Your task to perform on an android device: Clear the shopping cart on newegg.com. Add "lenovo thinkpad" to the cart on newegg.com Image 0: 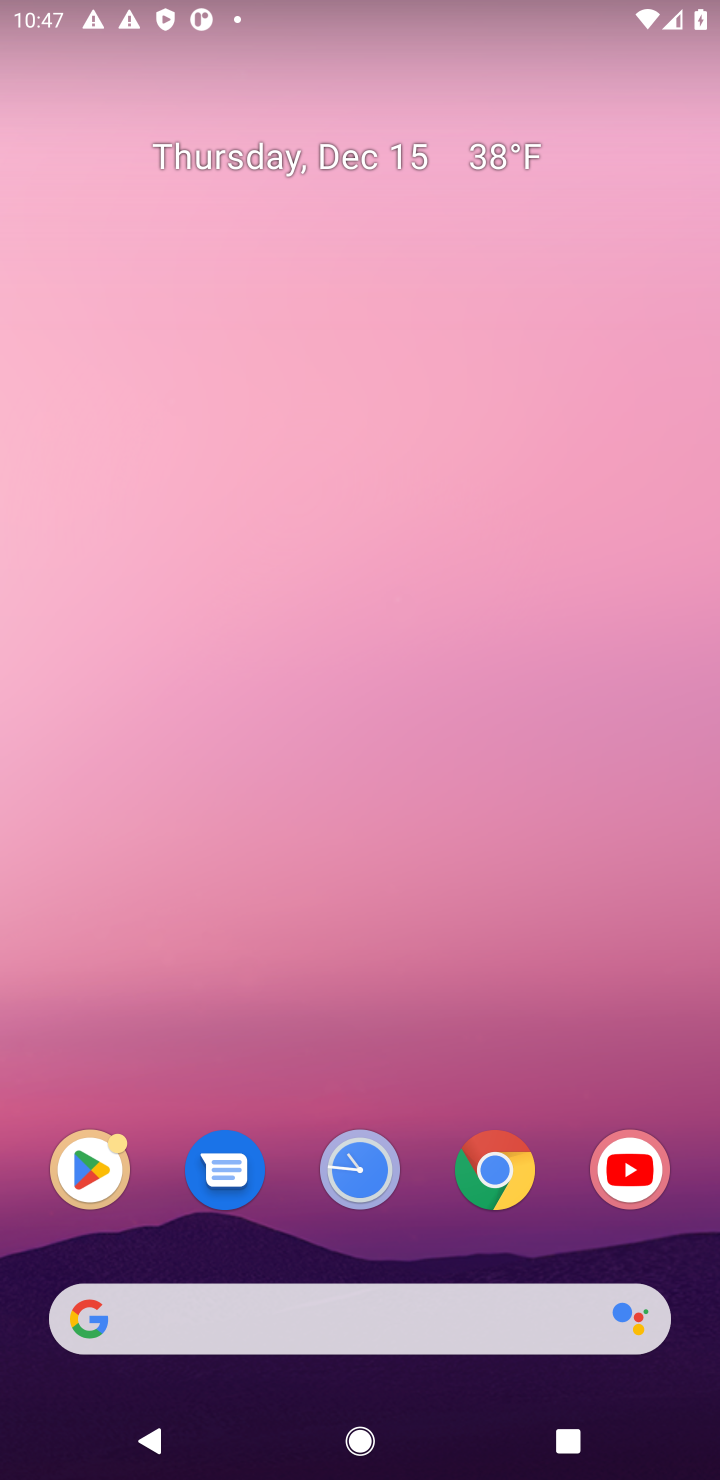
Step 0: click (497, 1167)
Your task to perform on an android device: Clear the shopping cart on newegg.com. Add "lenovo thinkpad" to the cart on newegg.com Image 1: 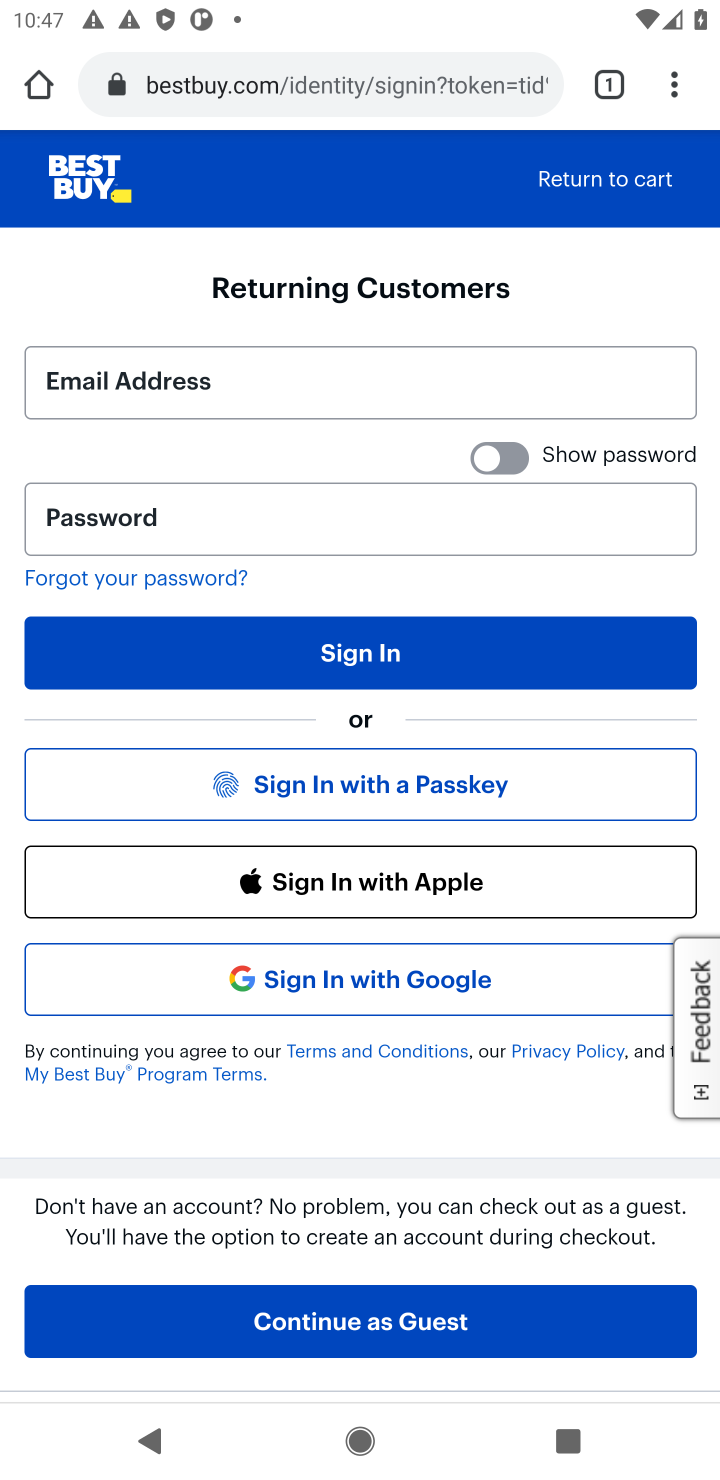
Step 1: click (256, 89)
Your task to perform on an android device: Clear the shopping cart on newegg.com. Add "lenovo thinkpad" to the cart on newegg.com Image 2: 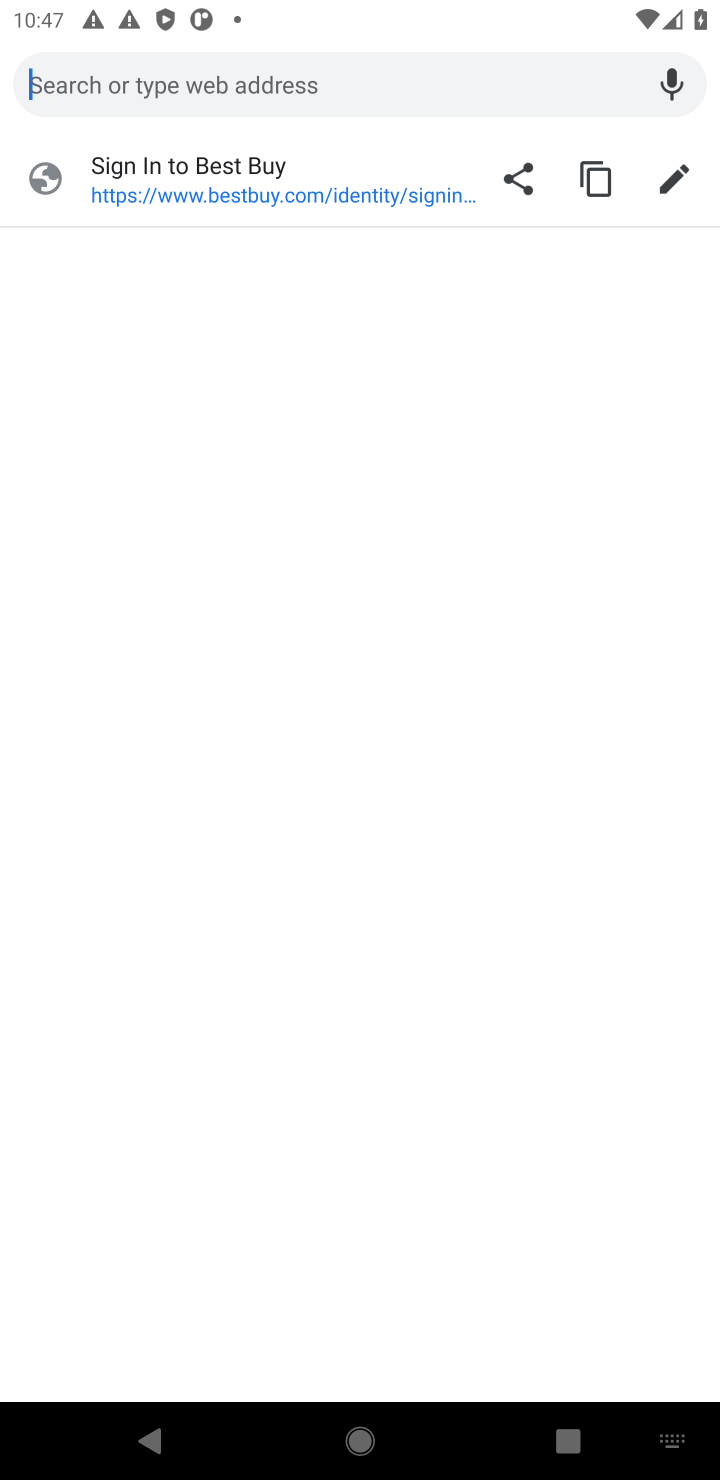
Step 2: type "newegg.com"
Your task to perform on an android device: Clear the shopping cart on newegg.com. Add "lenovo thinkpad" to the cart on newegg.com Image 3: 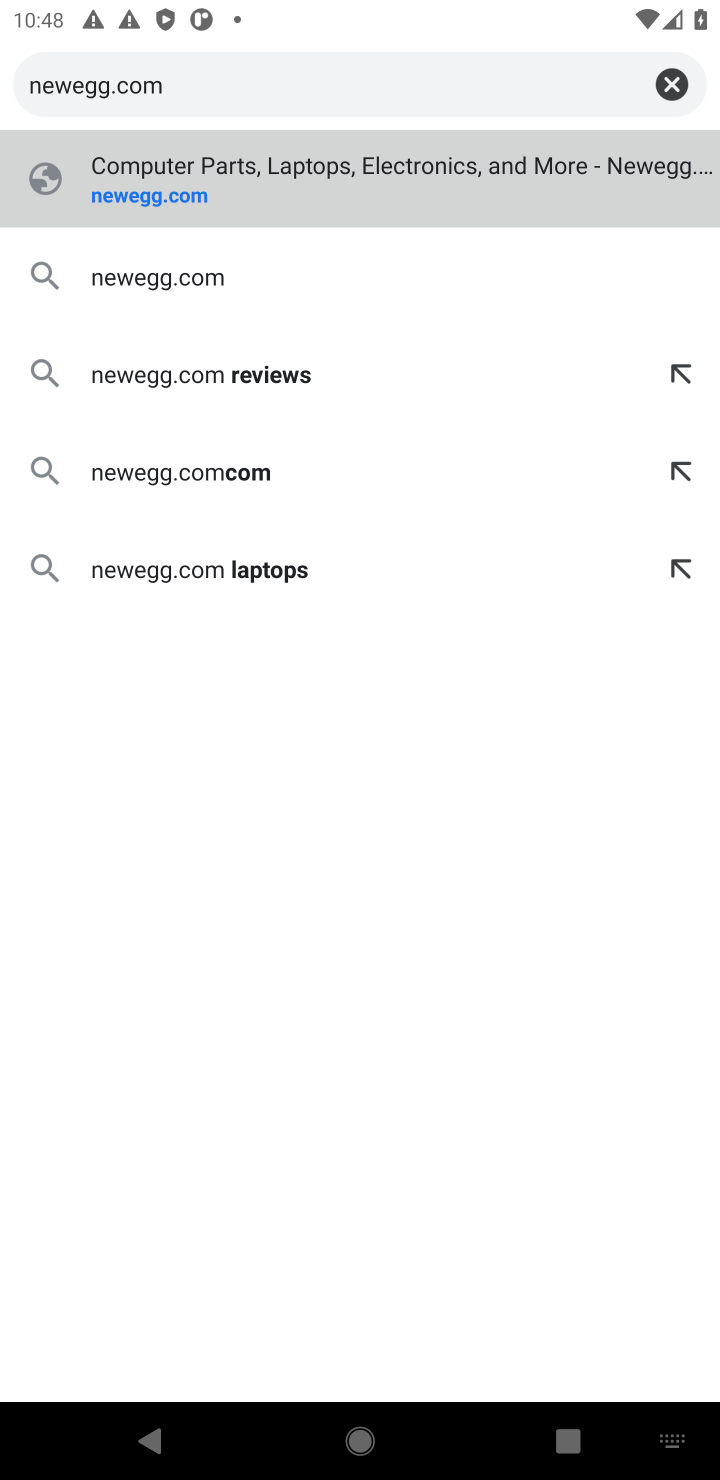
Step 3: click (178, 208)
Your task to perform on an android device: Clear the shopping cart on newegg.com. Add "lenovo thinkpad" to the cart on newegg.com Image 4: 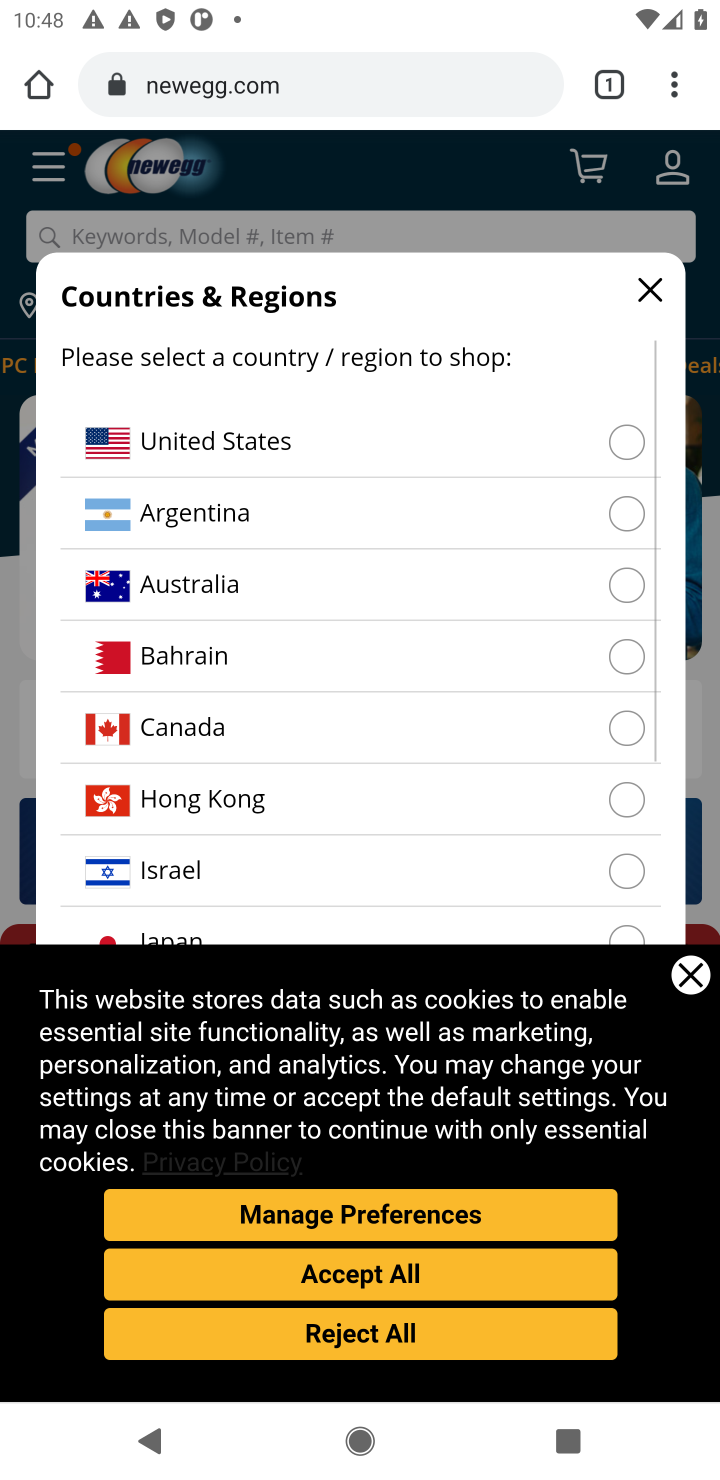
Step 4: click (688, 985)
Your task to perform on an android device: Clear the shopping cart on newegg.com. Add "lenovo thinkpad" to the cart on newegg.com Image 5: 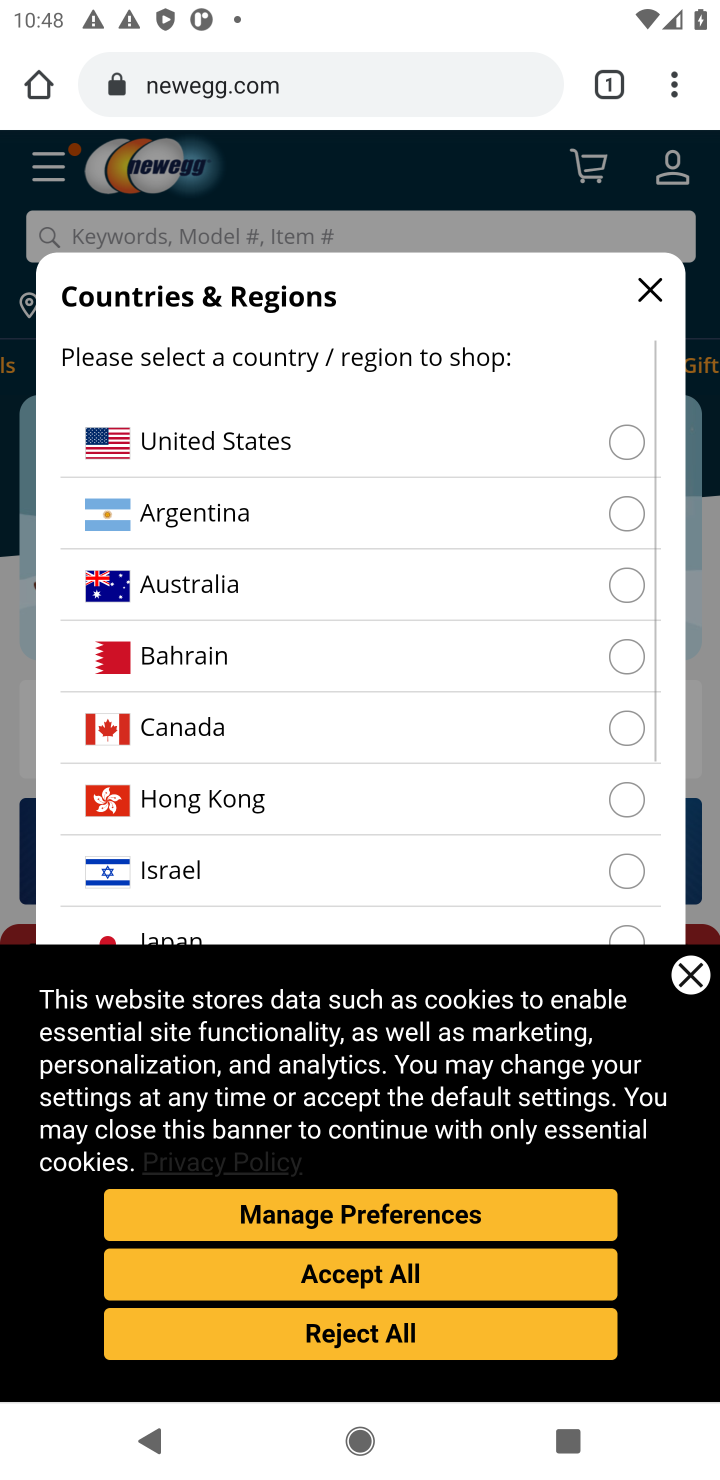
Step 5: click (685, 978)
Your task to perform on an android device: Clear the shopping cart on newegg.com. Add "lenovo thinkpad" to the cart on newegg.com Image 6: 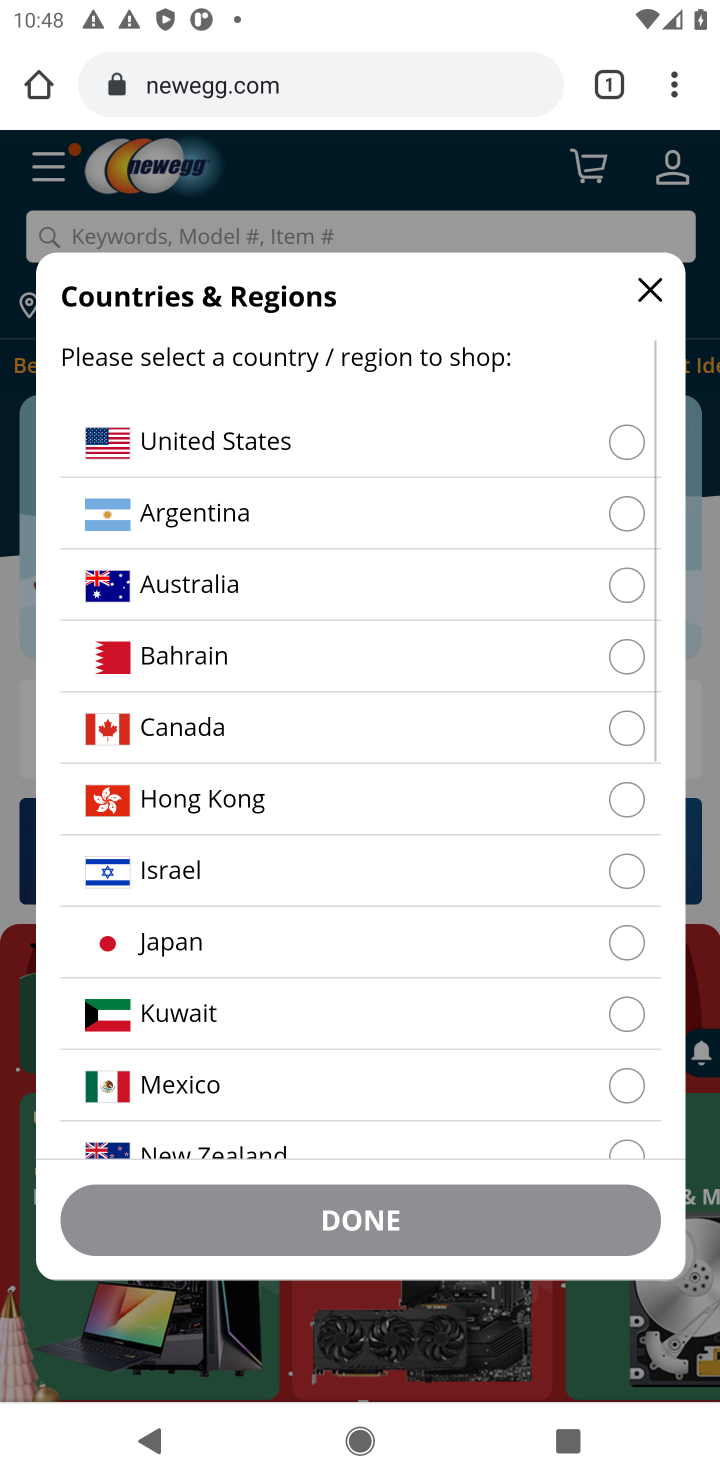
Step 6: click (147, 423)
Your task to perform on an android device: Clear the shopping cart on newegg.com. Add "lenovo thinkpad" to the cart on newegg.com Image 7: 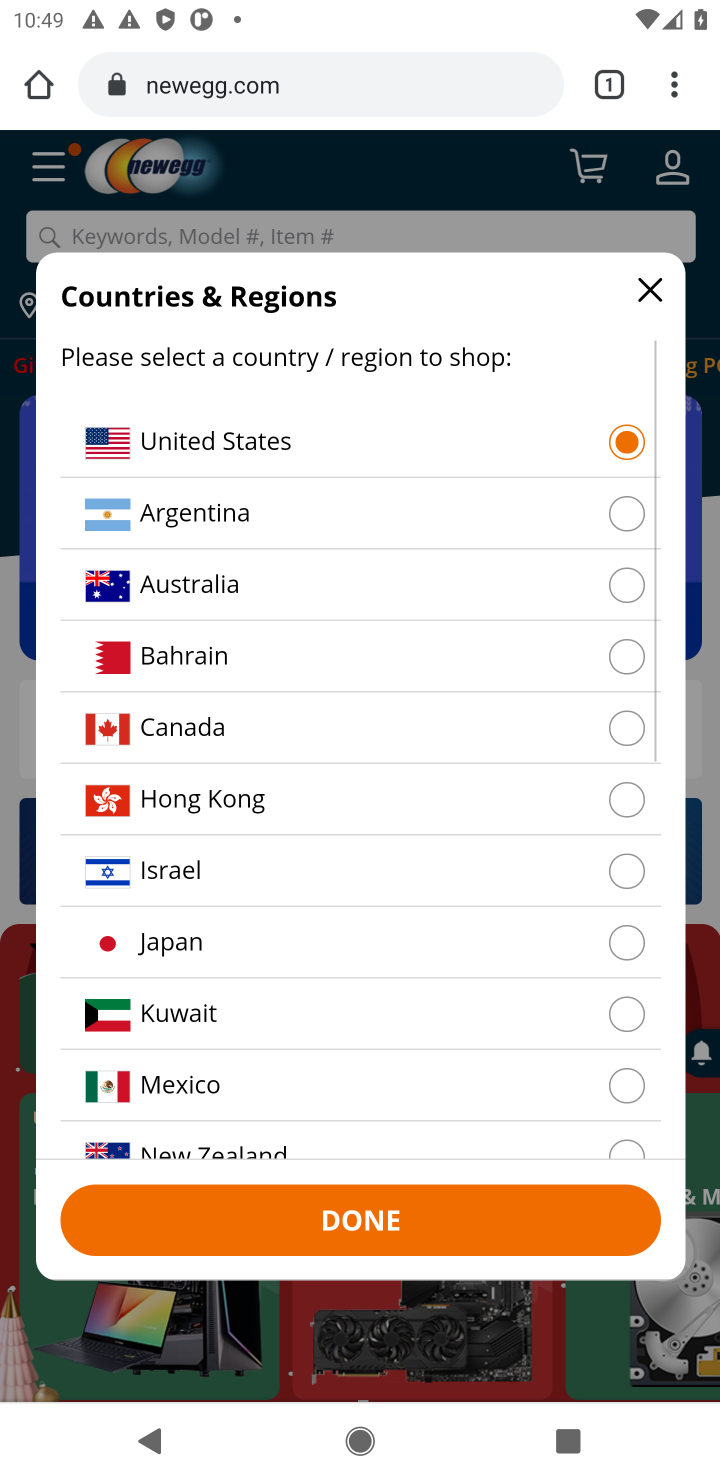
Step 7: click (291, 1239)
Your task to perform on an android device: Clear the shopping cart on newegg.com. Add "lenovo thinkpad" to the cart on newegg.com Image 8: 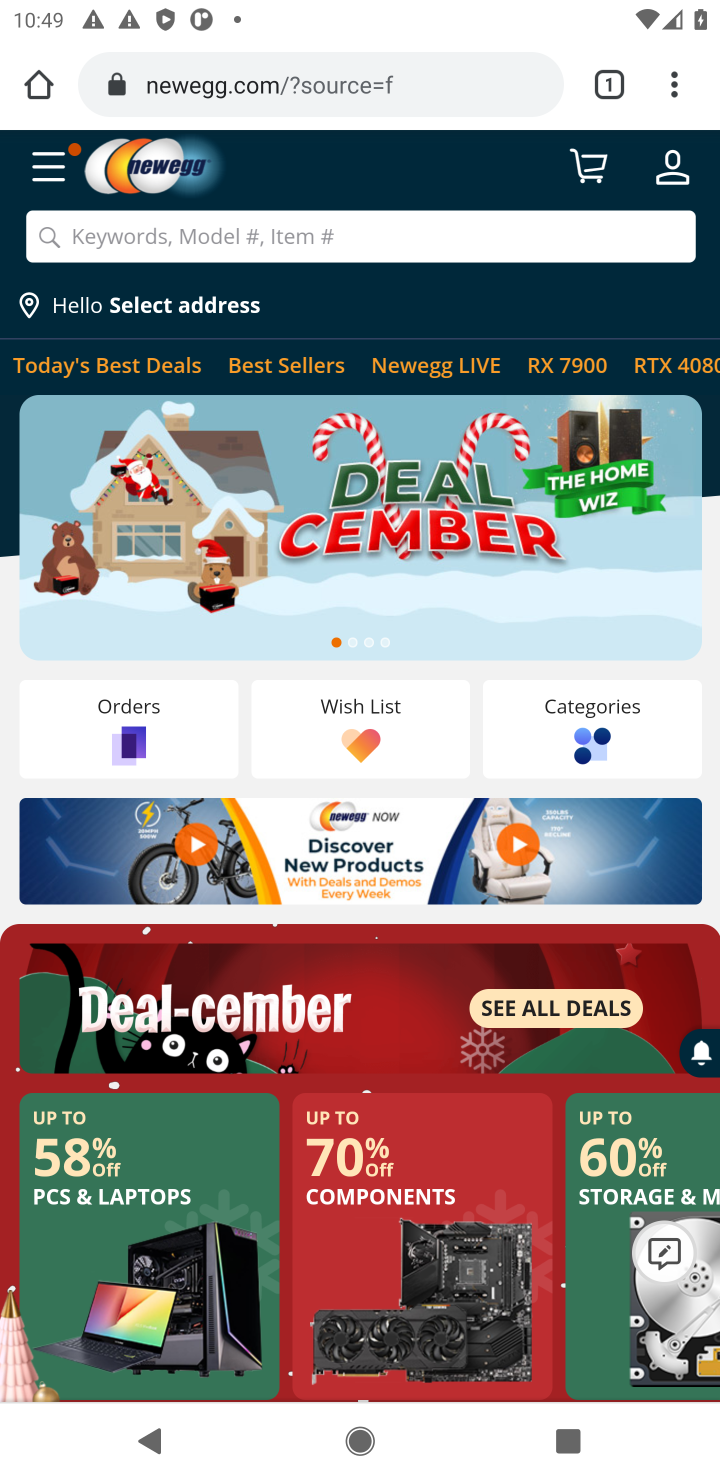
Step 8: click (600, 175)
Your task to perform on an android device: Clear the shopping cart on newegg.com. Add "lenovo thinkpad" to the cart on newegg.com Image 9: 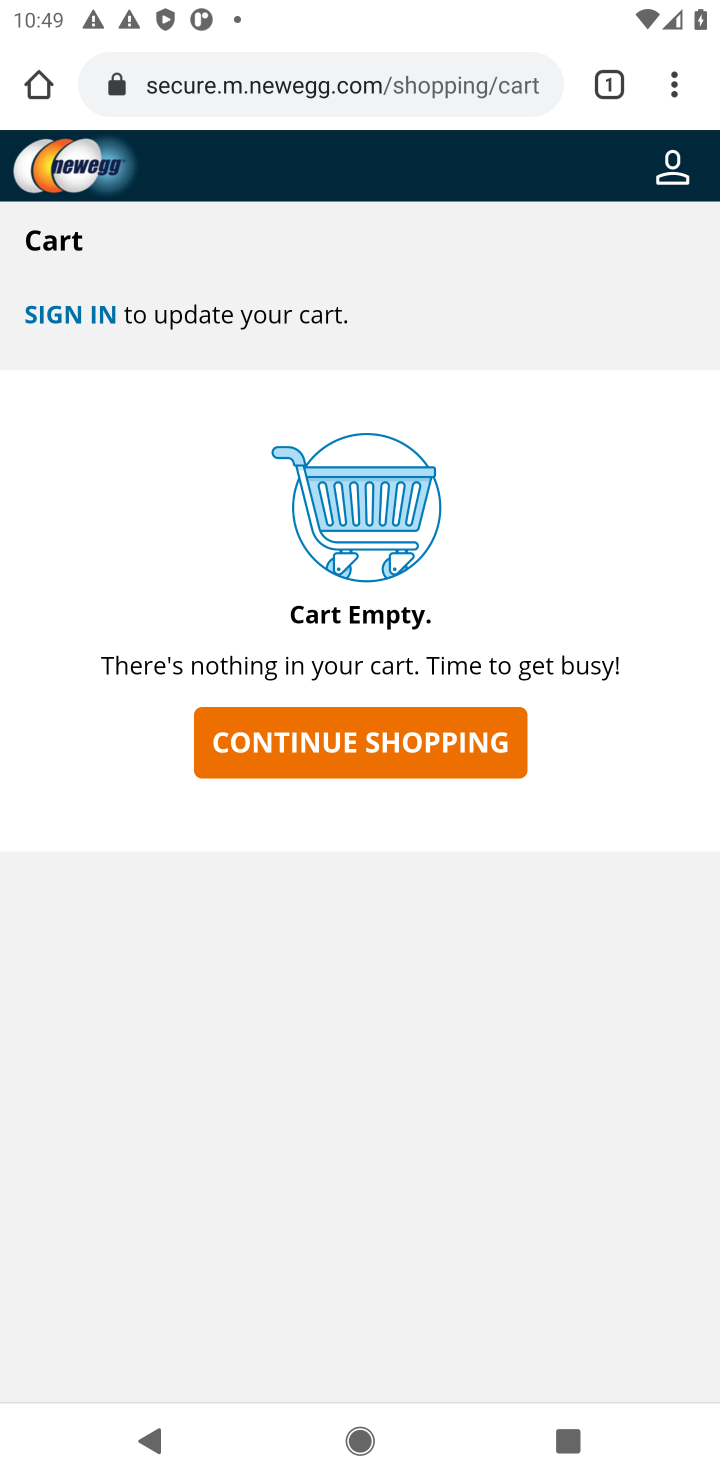
Step 9: click (324, 756)
Your task to perform on an android device: Clear the shopping cart on newegg.com. Add "lenovo thinkpad" to the cart on newegg.com Image 10: 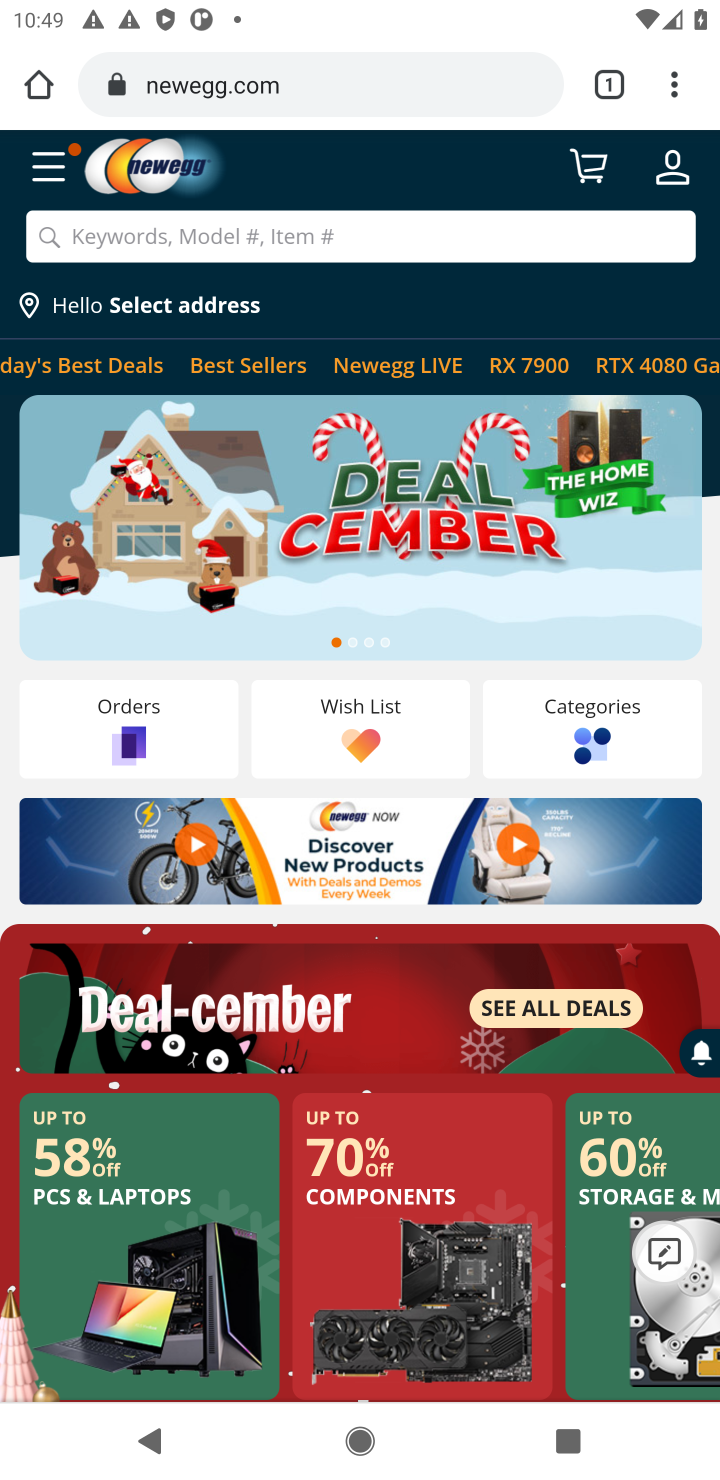
Step 10: click (210, 247)
Your task to perform on an android device: Clear the shopping cart on newegg.com. Add "lenovo thinkpad" to the cart on newegg.com Image 11: 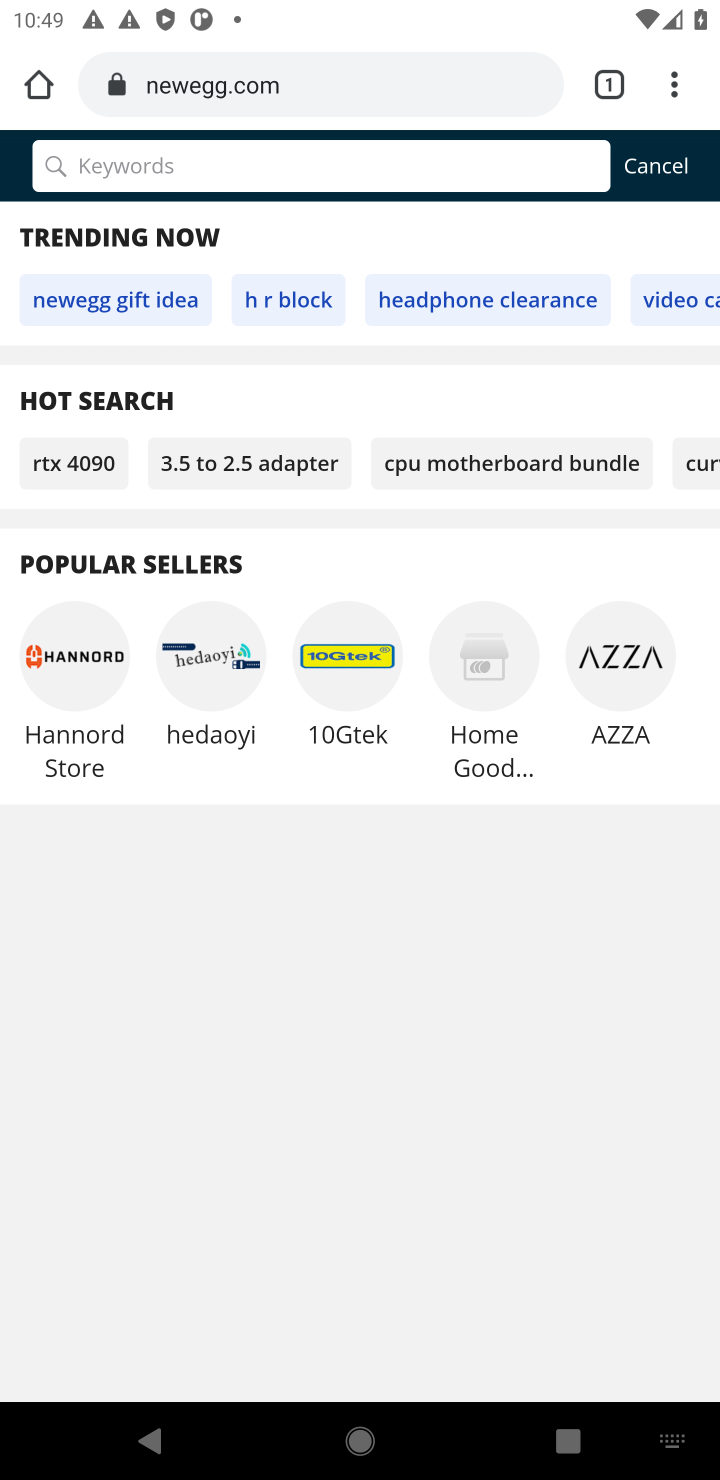
Step 11: type "lenovo thinkpad"
Your task to perform on an android device: Clear the shopping cart on newegg.com. Add "lenovo thinkpad" to the cart on newegg.com Image 12: 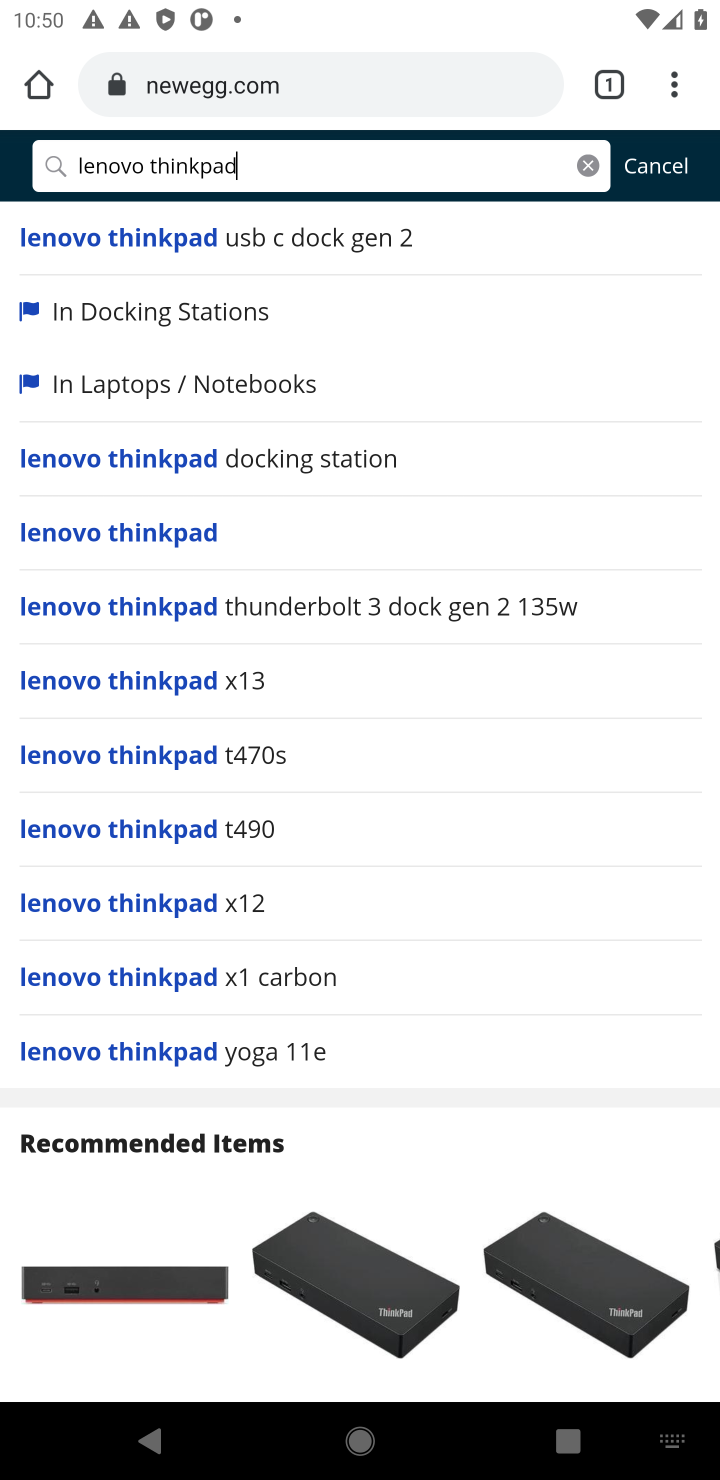
Step 12: click (103, 541)
Your task to perform on an android device: Clear the shopping cart on newegg.com. Add "lenovo thinkpad" to the cart on newegg.com Image 13: 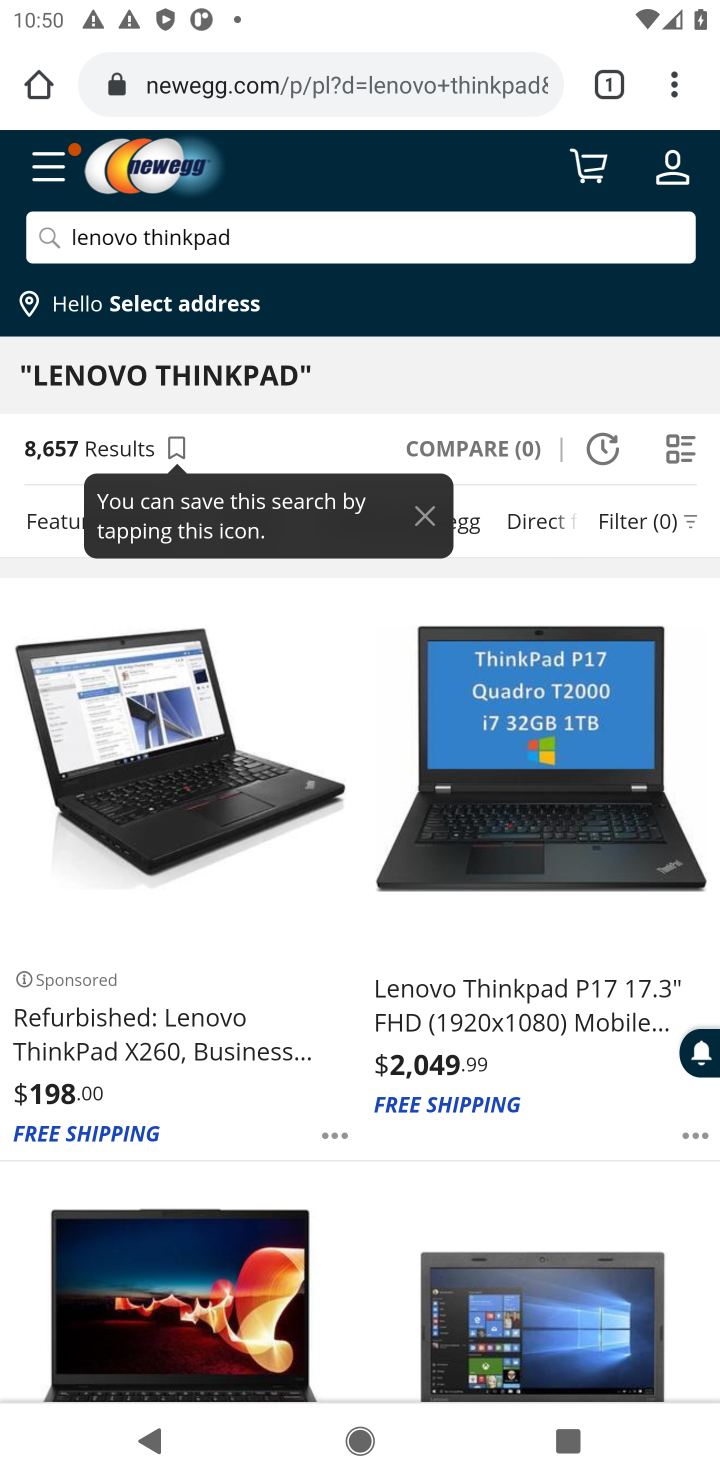
Step 13: click (57, 1043)
Your task to perform on an android device: Clear the shopping cart on newegg.com. Add "lenovo thinkpad" to the cart on newegg.com Image 14: 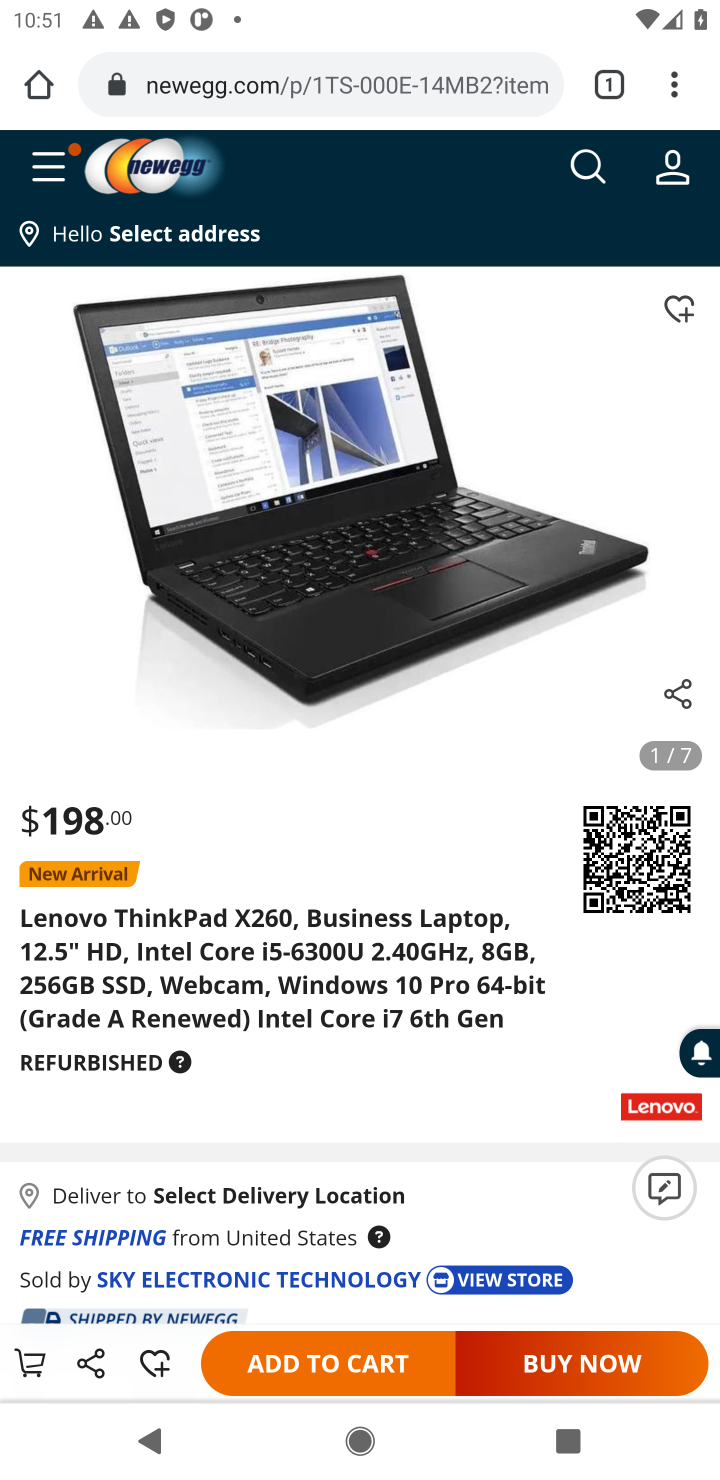
Step 14: click (320, 1366)
Your task to perform on an android device: Clear the shopping cart on newegg.com. Add "lenovo thinkpad" to the cart on newegg.com Image 15: 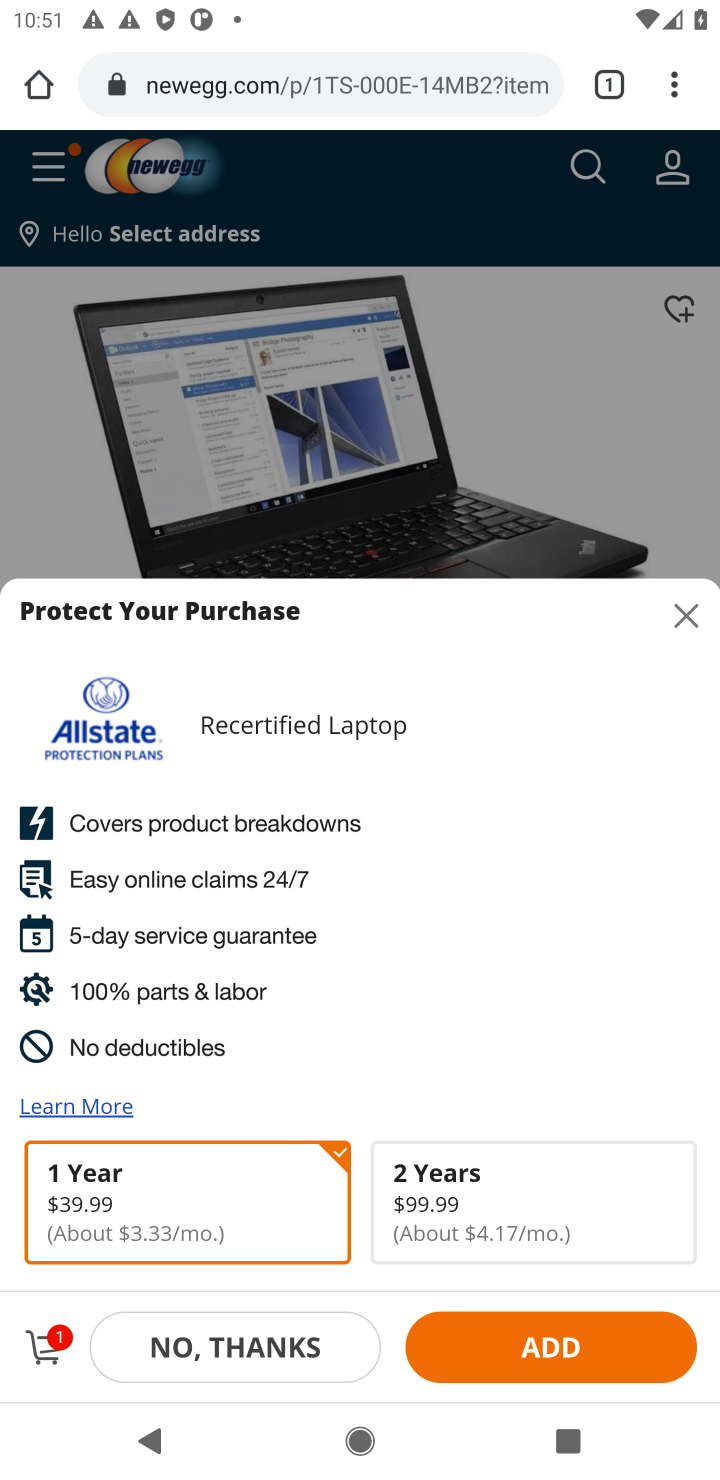
Step 15: task complete